Your task to perform on an android device: allow notifications from all sites in the chrome app Image 0: 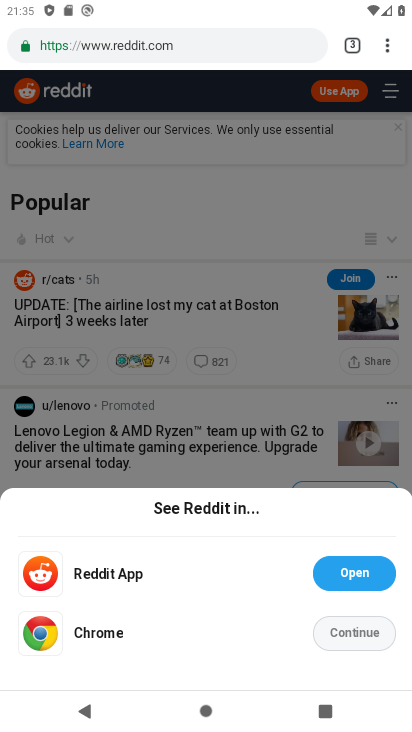
Step 0: press back button
Your task to perform on an android device: allow notifications from all sites in the chrome app Image 1: 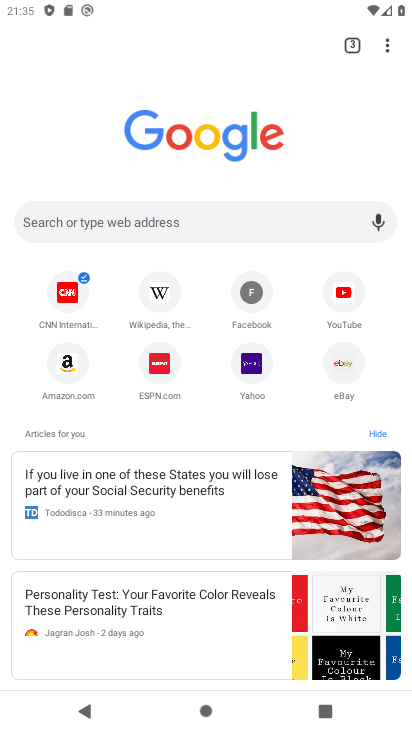
Step 1: drag from (382, 41) to (235, 377)
Your task to perform on an android device: allow notifications from all sites in the chrome app Image 2: 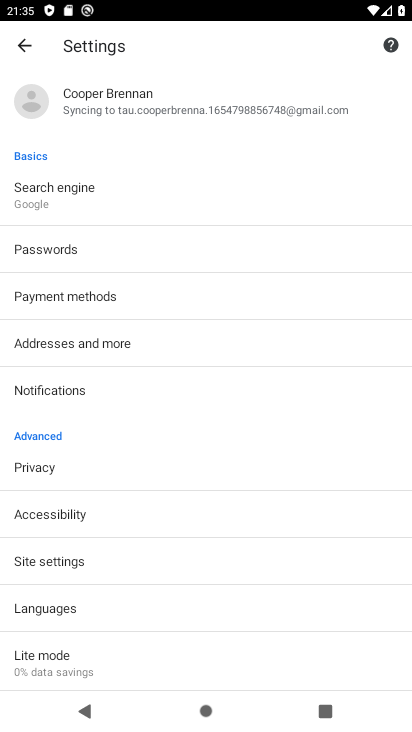
Step 2: click (69, 392)
Your task to perform on an android device: allow notifications from all sites in the chrome app Image 3: 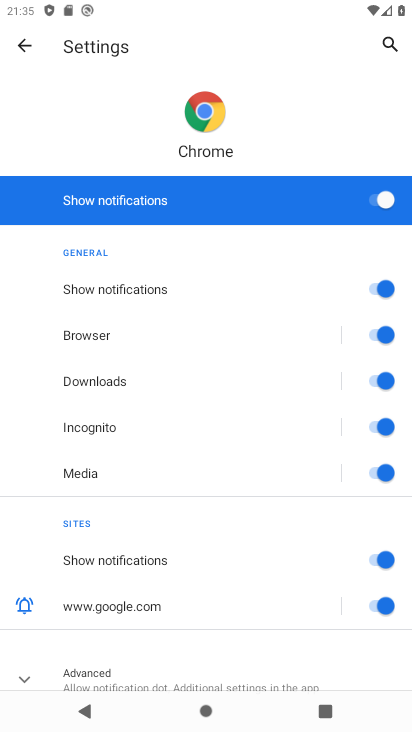
Step 3: task complete